Your task to perform on an android device: clear history in the chrome app Image 0: 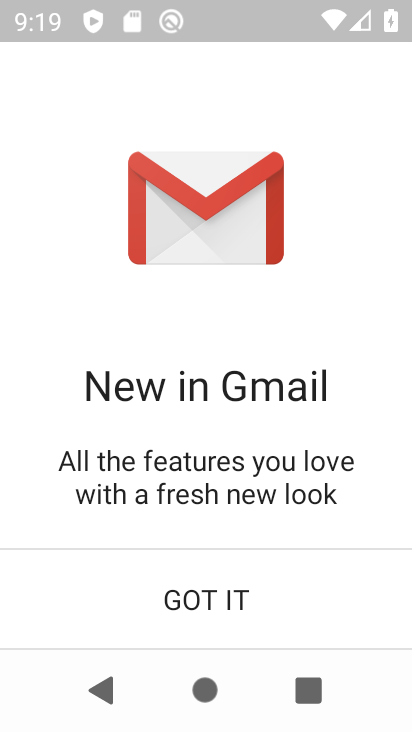
Step 0: press home button
Your task to perform on an android device: clear history in the chrome app Image 1: 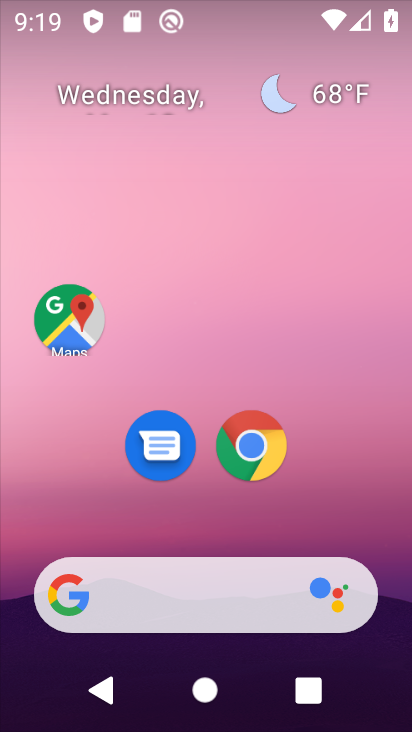
Step 1: click (236, 455)
Your task to perform on an android device: clear history in the chrome app Image 2: 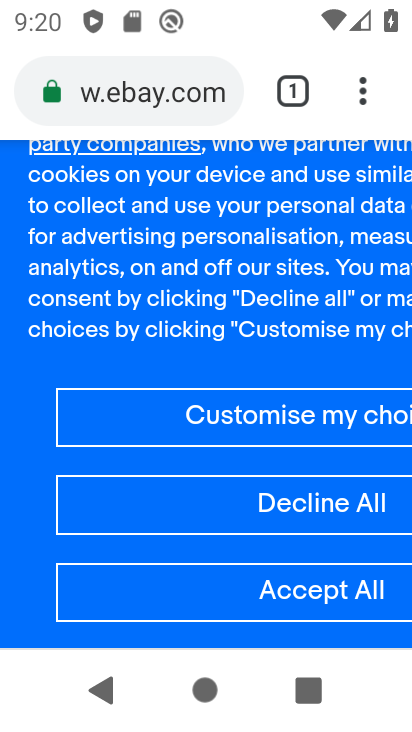
Step 2: drag from (368, 95) to (112, 495)
Your task to perform on an android device: clear history in the chrome app Image 3: 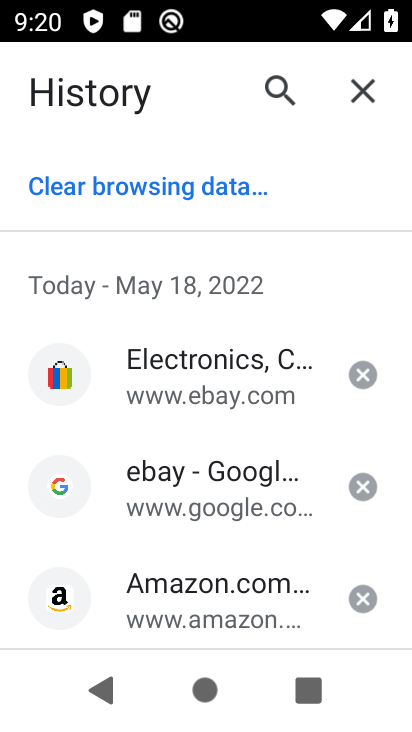
Step 3: click (89, 199)
Your task to perform on an android device: clear history in the chrome app Image 4: 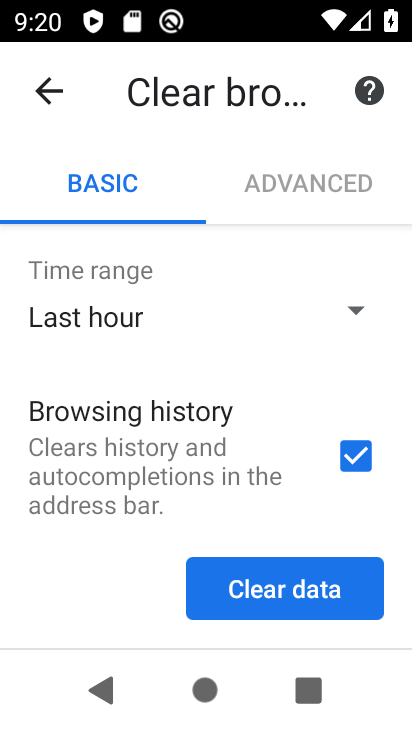
Step 4: drag from (185, 478) to (152, 168)
Your task to perform on an android device: clear history in the chrome app Image 5: 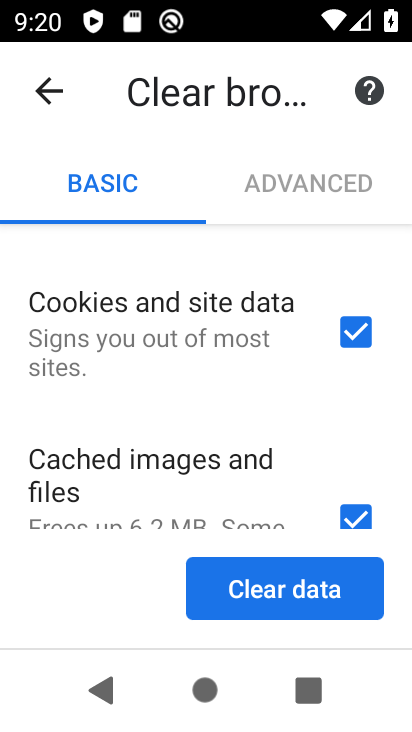
Step 5: click (349, 342)
Your task to perform on an android device: clear history in the chrome app Image 6: 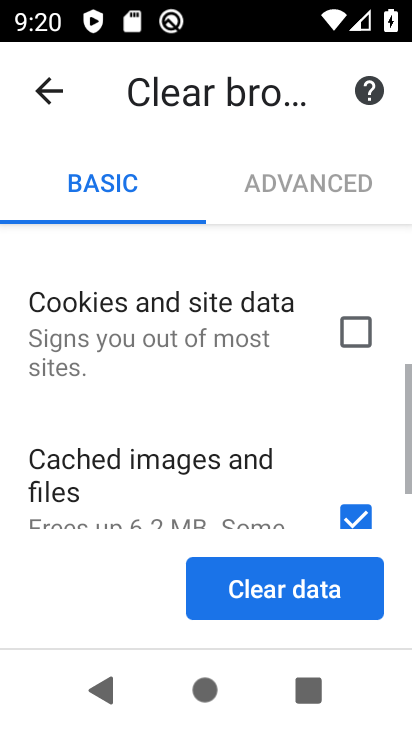
Step 6: click (356, 520)
Your task to perform on an android device: clear history in the chrome app Image 7: 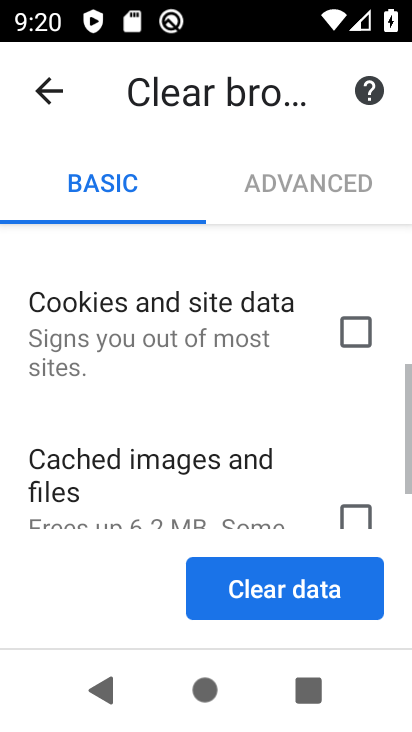
Step 7: click (294, 588)
Your task to perform on an android device: clear history in the chrome app Image 8: 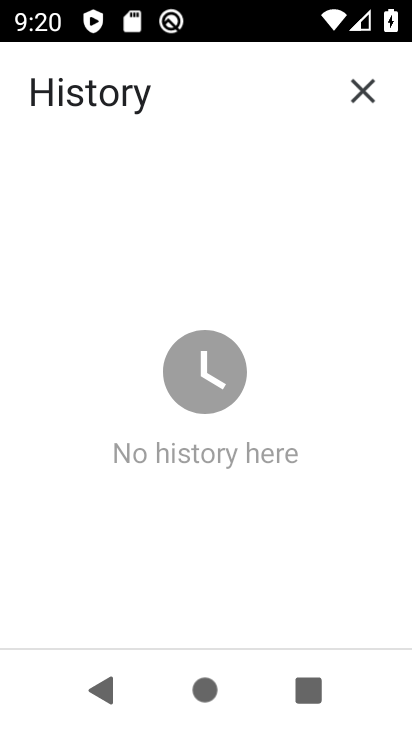
Step 8: task complete